Your task to perform on an android device: toggle sleep mode Image 0: 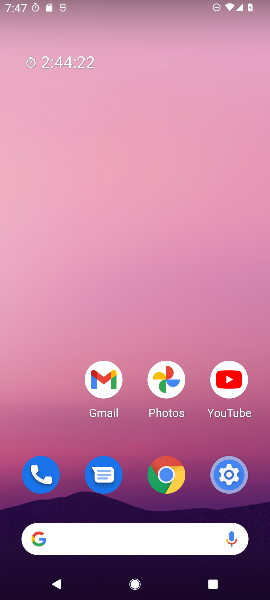
Step 0: press home button
Your task to perform on an android device: toggle sleep mode Image 1: 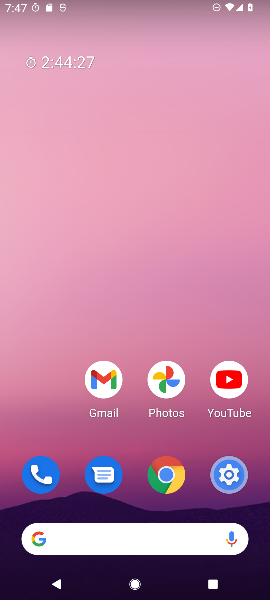
Step 1: drag from (61, 437) to (63, 212)
Your task to perform on an android device: toggle sleep mode Image 2: 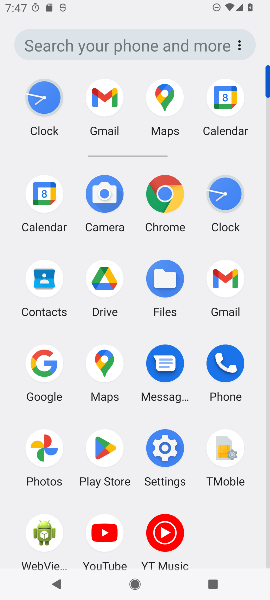
Step 2: click (171, 446)
Your task to perform on an android device: toggle sleep mode Image 3: 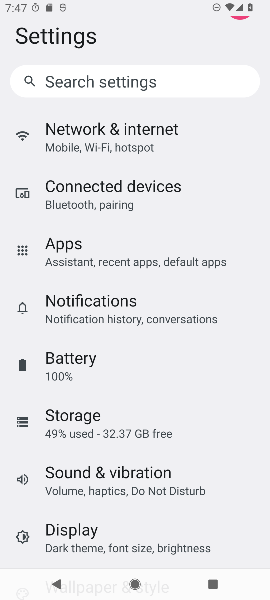
Step 3: drag from (198, 416) to (213, 367)
Your task to perform on an android device: toggle sleep mode Image 4: 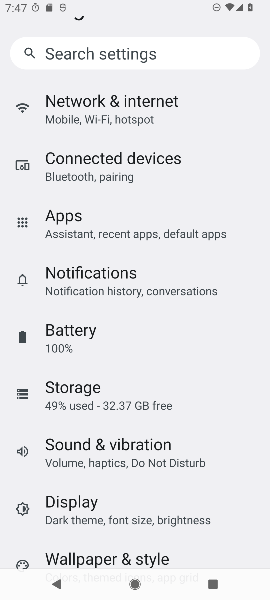
Step 4: drag from (222, 442) to (233, 384)
Your task to perform on an android device: toggle sleep mode Image 5: 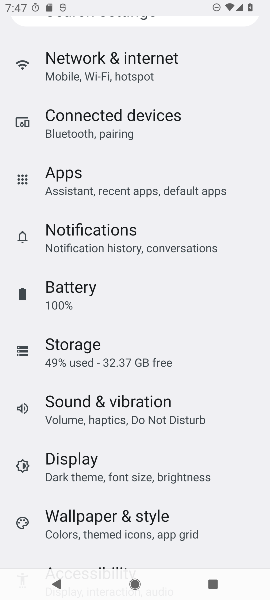
Step 5: drag from (238, 448) to (245, 385)
Your task to perform on an android device: toggle sleep mode Image 6: 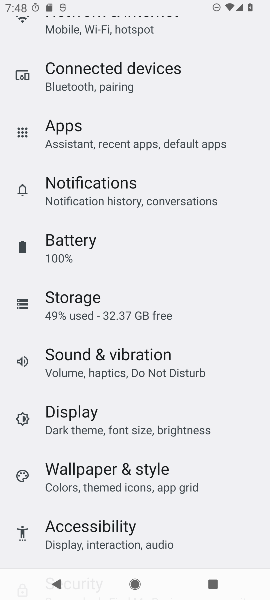
Step 6: drag from (239, 449) to (251, 379)
Your task to perform on an android device: toggle sleep mode Image 7: 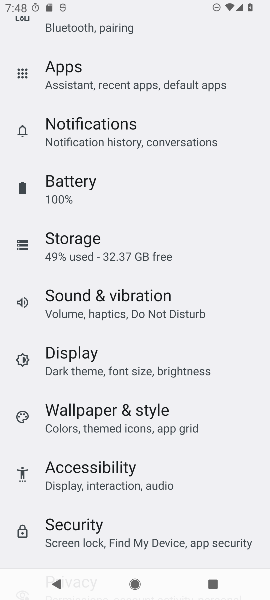
Step 7: drag from (238, 453) to (248, 389)
Your task to perform on an android device: toggle sleep mode Image 8: 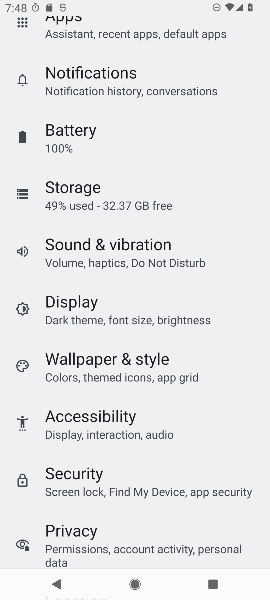
Step 8: drag from (239, 398) to (241, 324)
Your task to perform on an android device: toggle sleep mode Image 9: 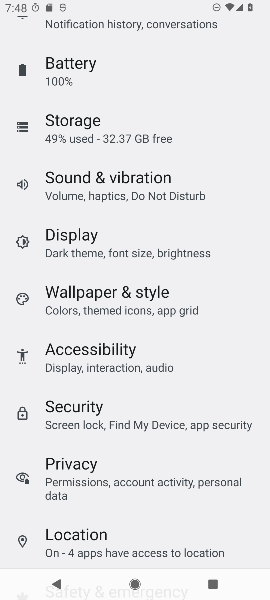
Step 9: drag from (230, 405) to (230, 315)
Your task to perform on an android device: toggle sleep mode Image 10: 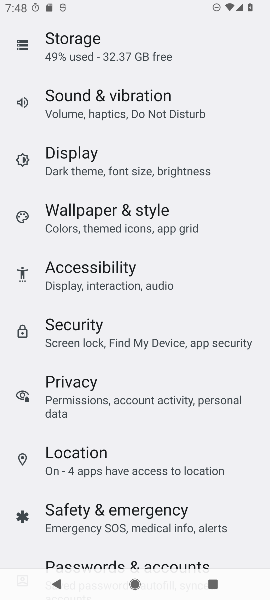
Step 10: drag from (232, 445) to (236, 369)
Your task to perform on an android device: toggle sleep mode Image 11: 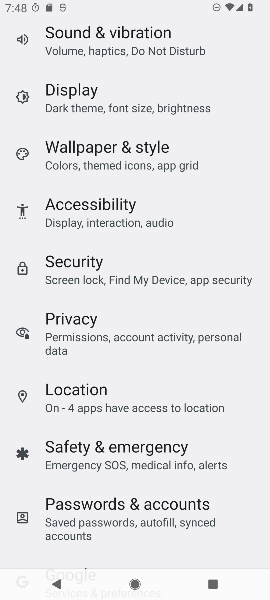
Step 11: click (199, 104)
Your task to perform on an android device: toggle sleep mode Image 12: 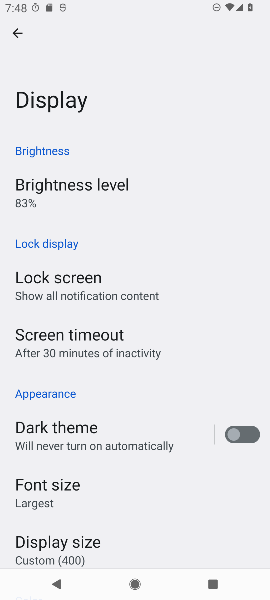
Step 12: task complete